Your task to perform on an android device: open app "Firefox Browser" (install if not already installed), go to login, and select forgot password Image 0: 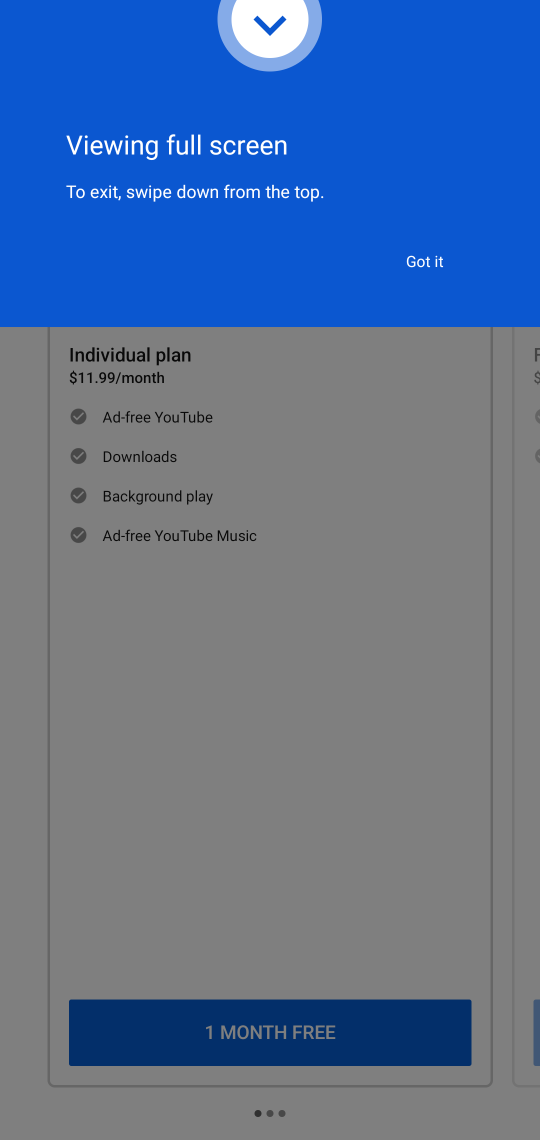
Step 0: press home button
Your task to perform on an android device: open app "Firefox Browser" (install if not already installed), go to login, and select forgot password Image 1: 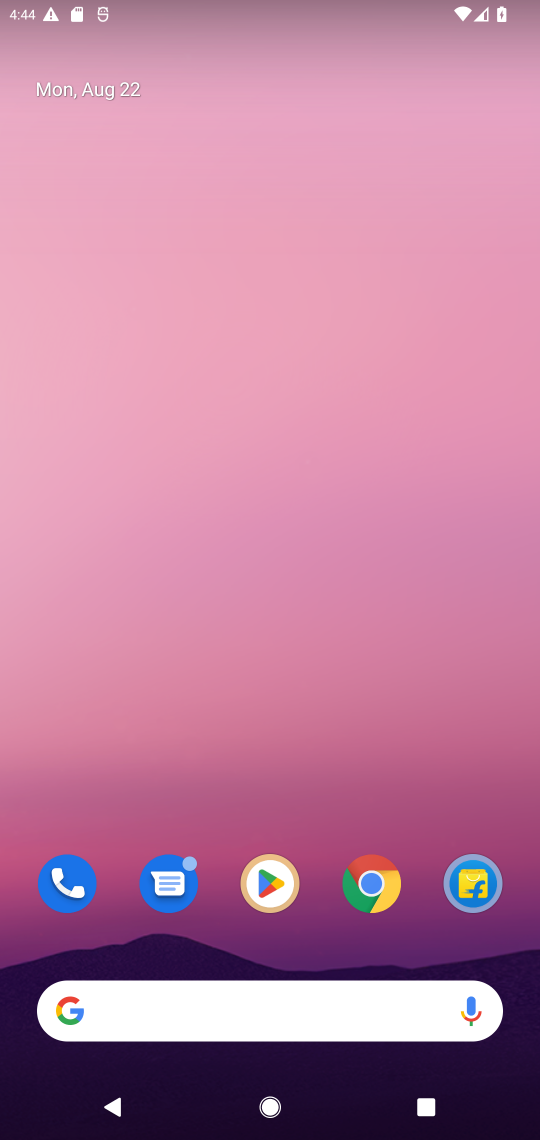
Step 1: drag from (260, 835) to (279, 581)
Your task to perform on an android device: open app "Firefox Browser" (install if not already installed), go to login, and select forgot password Image 2: 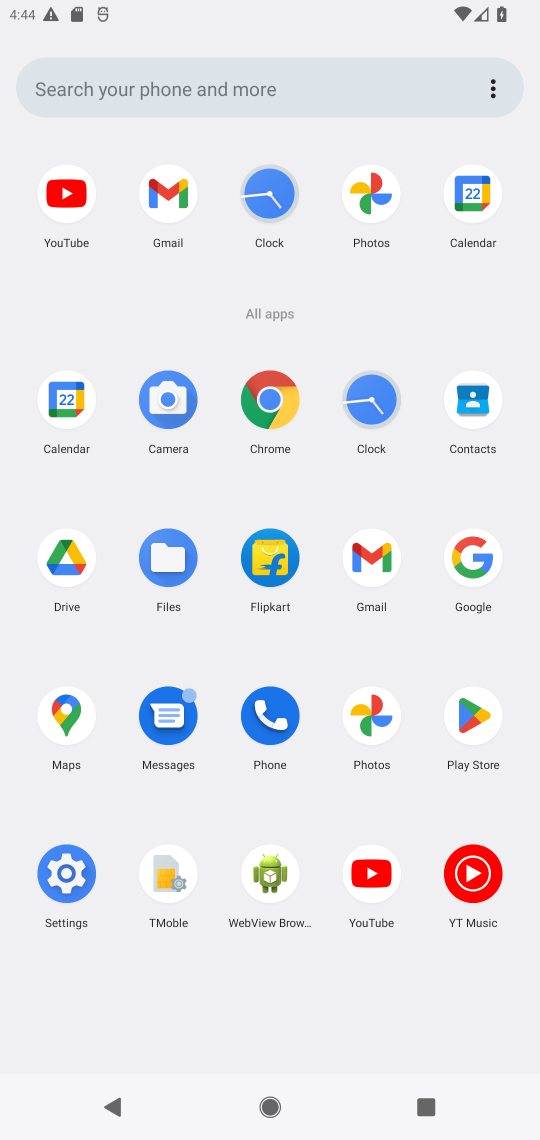
Step 2: click (472, 720)
Your task to perform on an android device: open app "Firefox Browser" (install if not already installed), go to login, and select forgot password Image 3: 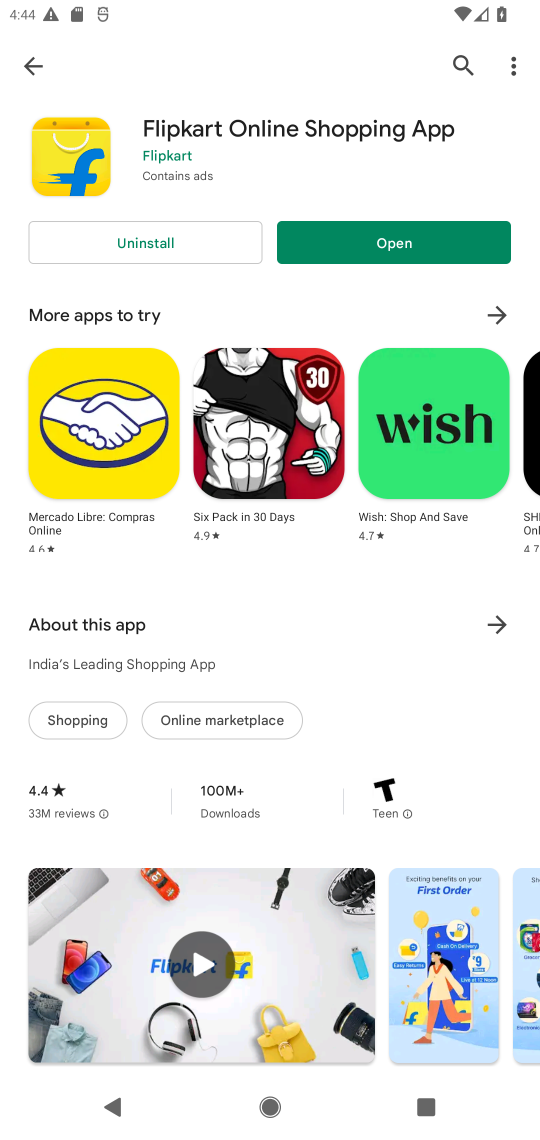
Step 3: drag from (179, 1072) to (60, 1135)
Your task to perform on an android device: open app "Firefox Browser" (install if not already installed), go to login, and select forgot password Image 4: 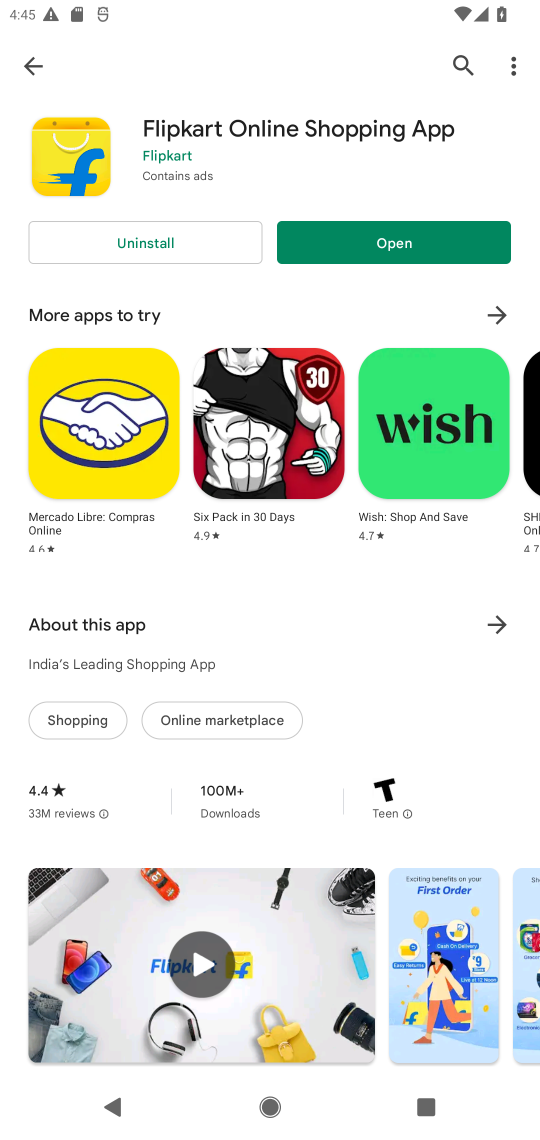
Step 4: click (453, 72)
Your task to perform on an android device: open app "Firefox Browser" (install if not already installed), go to login, and select forgot password Image 5: 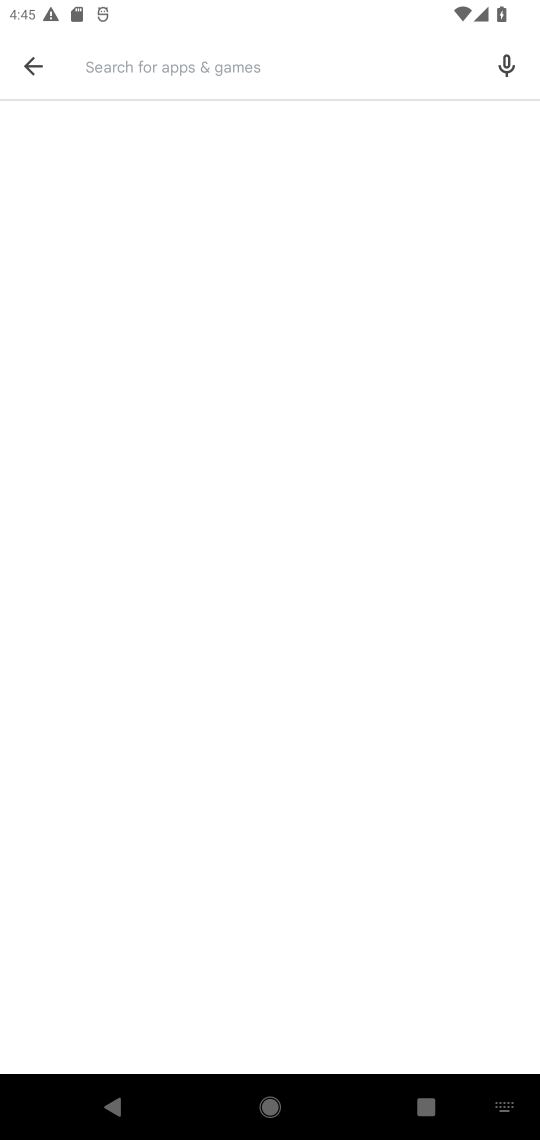
Step 5: type "Firefox Browser"
Your task to perform on an android device: open app "Firefox Browser" (install if not already installed), go to login, and select forgot password Image 6: 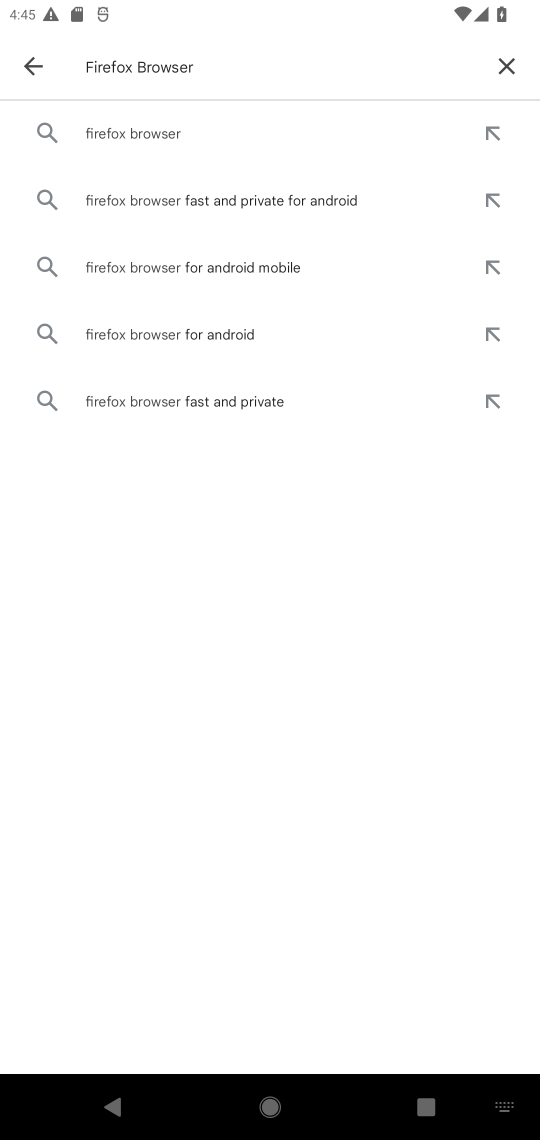
Step 6: click (215, 135)
Your task to perform on an android device: open app "Firefox Browser" (install if not already installed), go to login, and select forgot password Image 7: 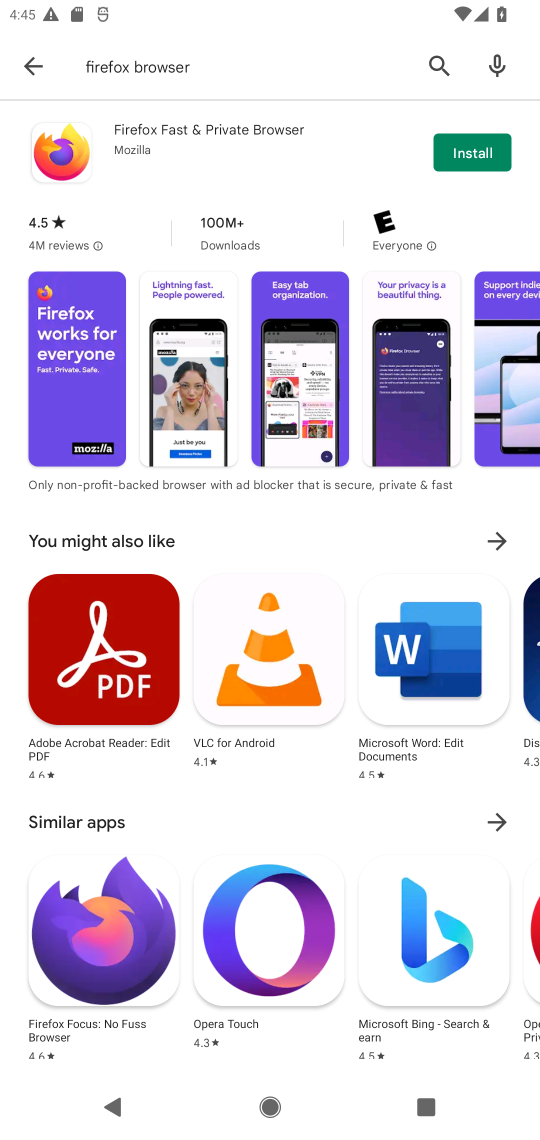
Step 7: click (479, 149)
Your task to perform on an android device: open app "Firefox Browser" (install if not already installed), go to login, and select forgot password Image 8: 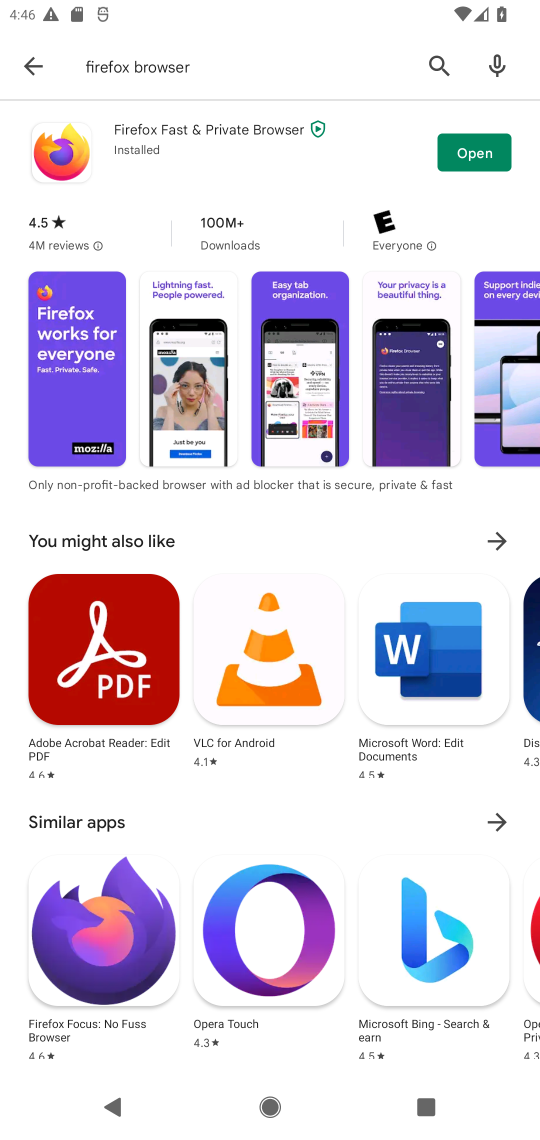
Step 8: click (485, 146)
Your task to perform on an android device: open app "Firefox Browser" (install if not already installed), go to login, and select forgot password Image 9: 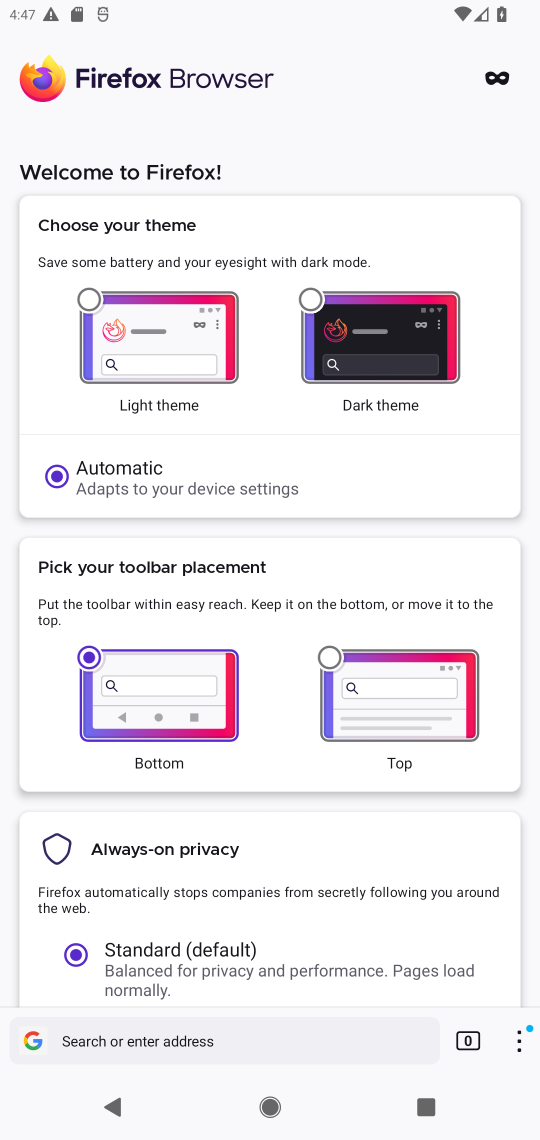
Step 9: press home button
Your task to perform on an android device: open app "Firefox Browser" (install if not already installed), go to login, and select forgot password Image 10: 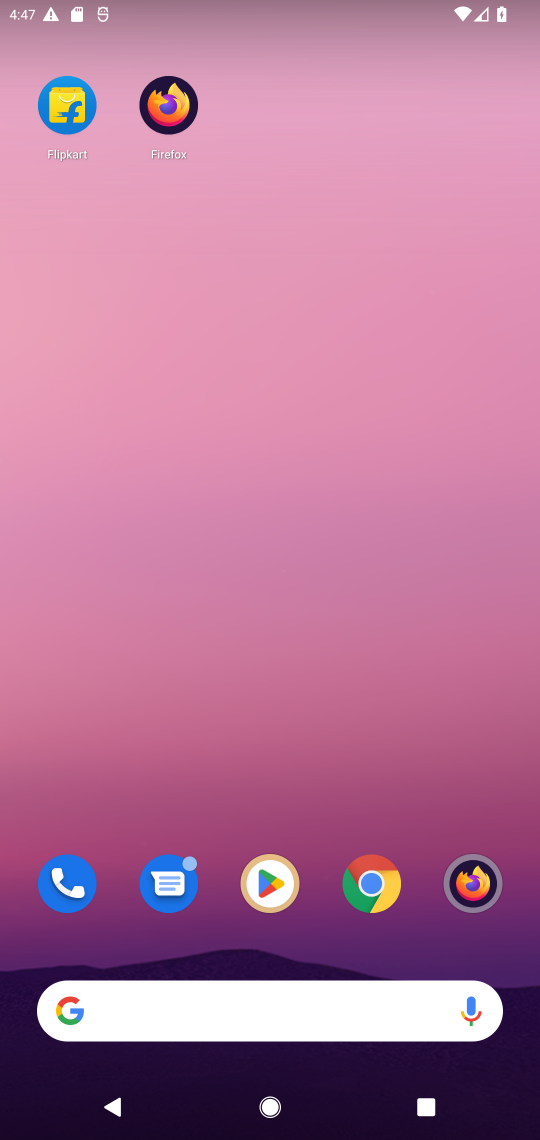
Step 10: drag from (401, 938) to (354, 678)
Your task to perform on an android device: open app "Firefox Browser" (install if not already installed), go to login, and select forgot password Image 11: 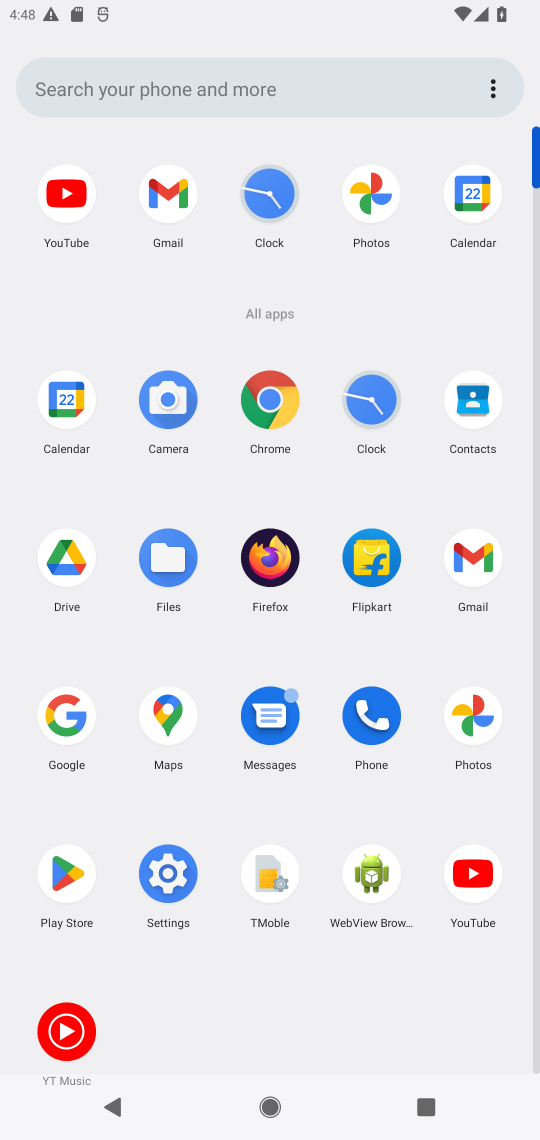
Step 11: click (259, 583)
Your task to perform on an android device: open app "Firefox Browser" (install if not already installed), go to login, and select forgot password Image 12: 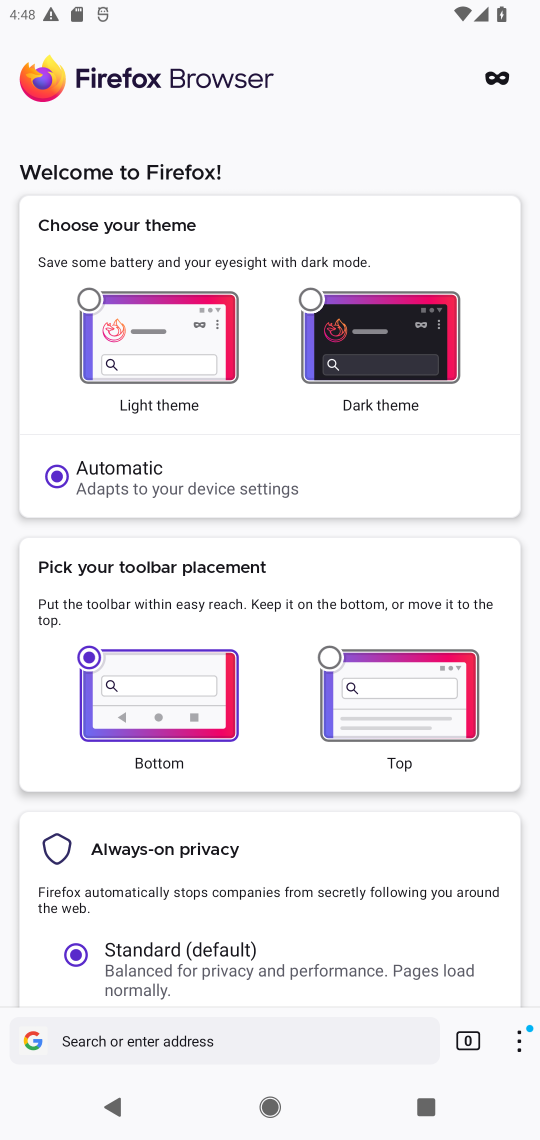
Step 12: task complete